Your task to perform on an android device: change the clock style Image 0: 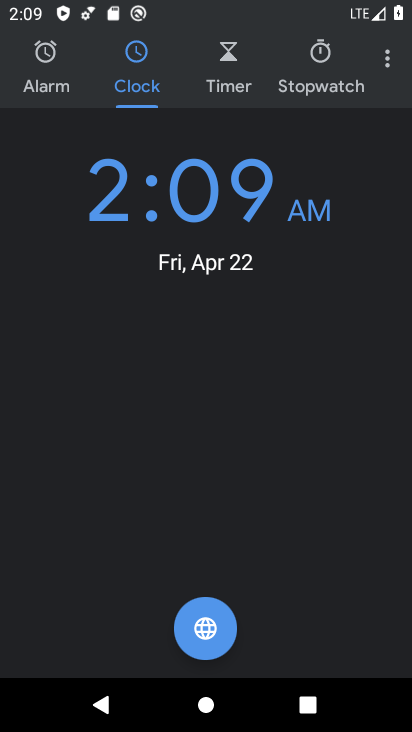
Step 0: press home button
Your task to perform on an android device: change the clock style Image 1: 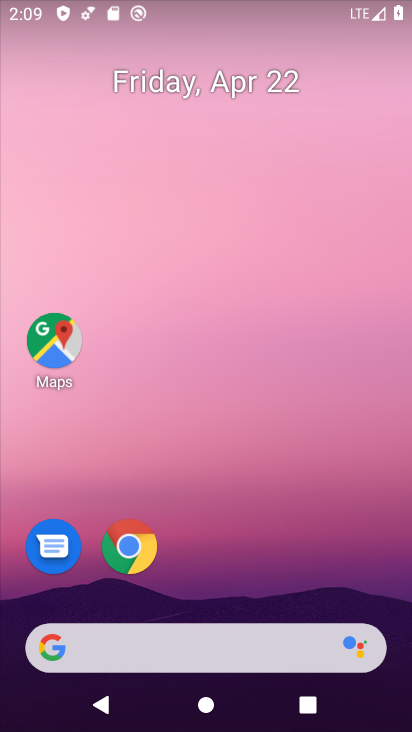
Step 1: drag from (263, 555) to (297, 123)
Your task to perform on an android device: change the clock style Image 2: 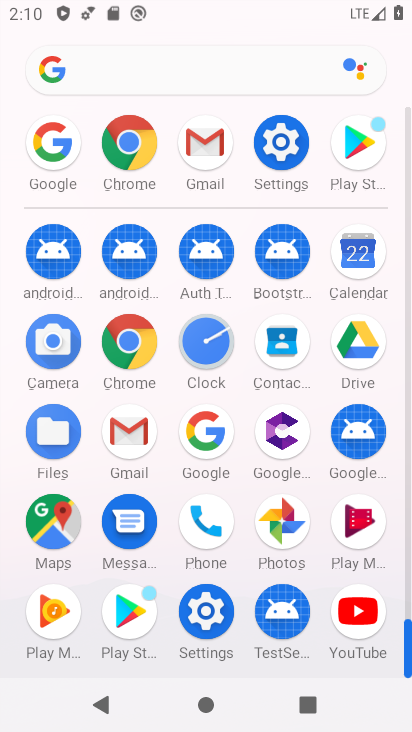
Step 2: click (210, 356)
Your task to perform on an android device: change the clock style Image 3: 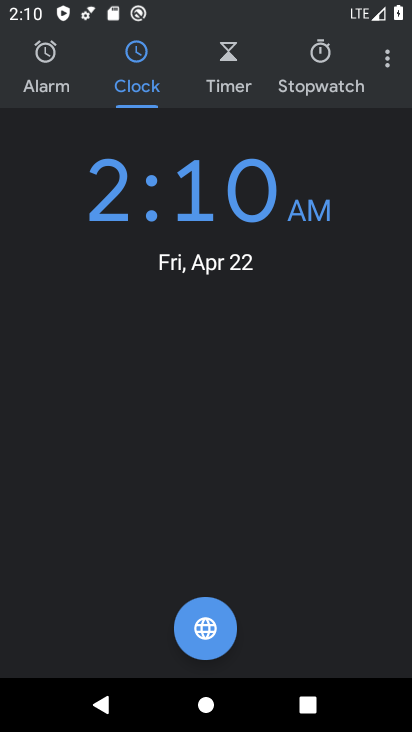
Step 3: click (385, 66)
Your task to perform on an android device: change the clock style Image 4: 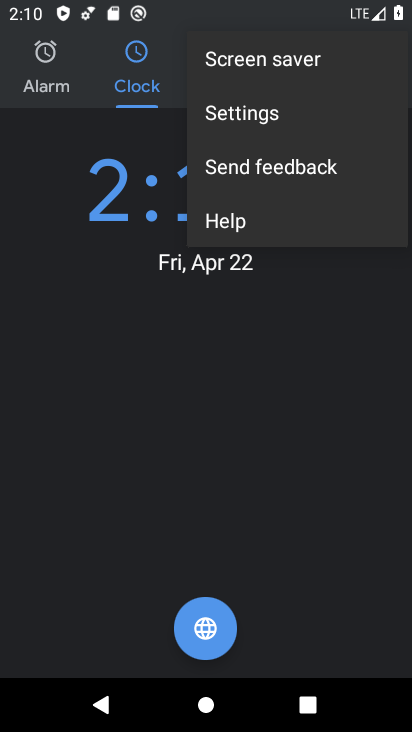
Step 4: click (282, 121)
Your task to perform on an android device: change the clock style Image 5: 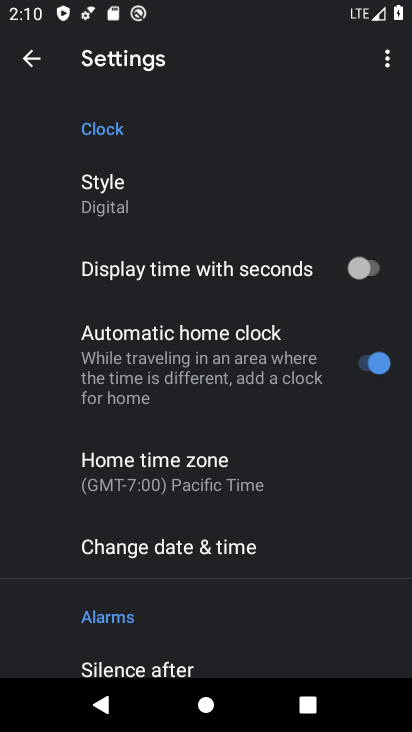
Step 5: drag from (192, 499) to (158, 232)
Your task to perform on an android device: change the clock style Image 6: 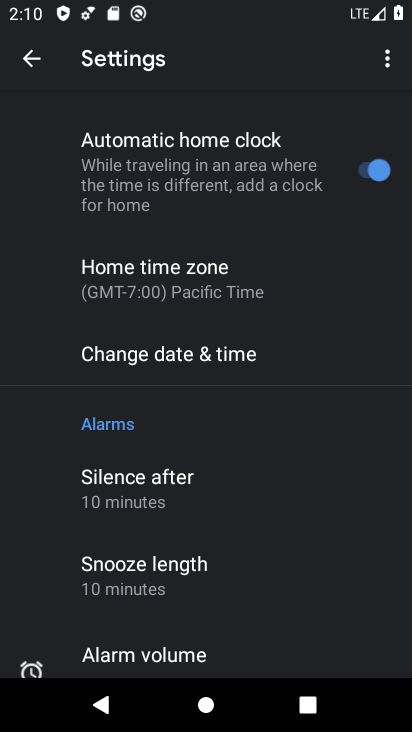
Step 6: drag from (197, 547) to (205, 338)
Your task to perform on an android device: change the clock style Image 7: 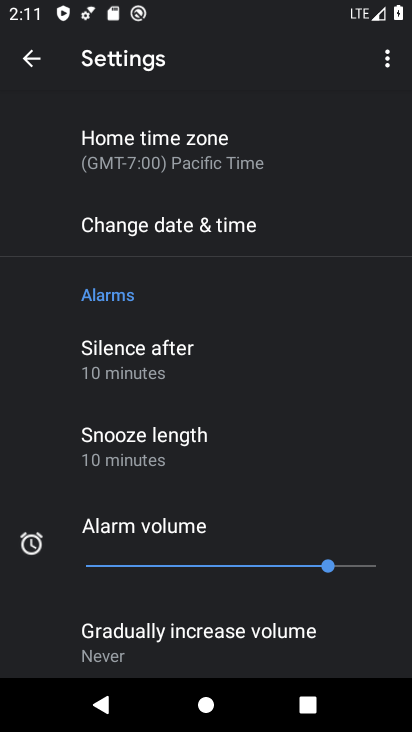
Step 7: drag from (181, 207) to (192, 513)
Your task to perform on an android device: change the clock style Image 8: 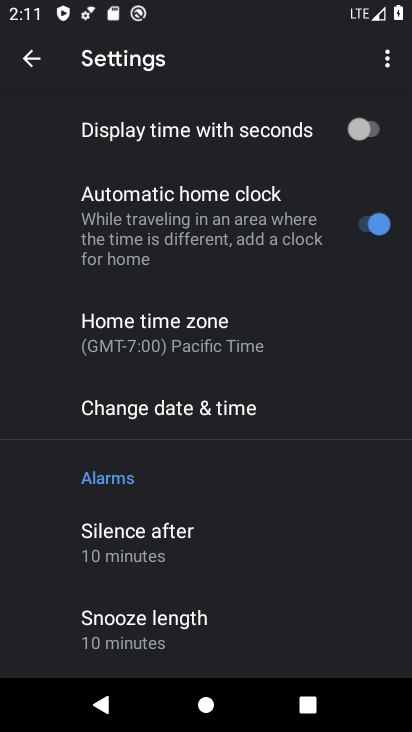
Step 8: drag from (157, 173) to (124, 730)
Your task to perform on an android device: change the clock style Image 9: 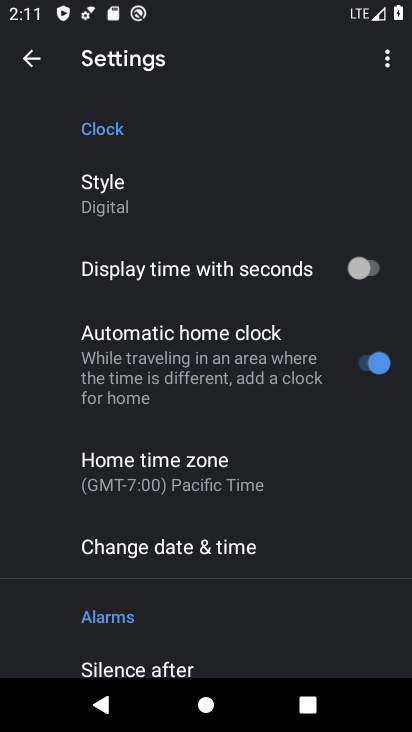
Step 9: click (107, 199)
Your task to perform on an android device: change the clock style Image 10: 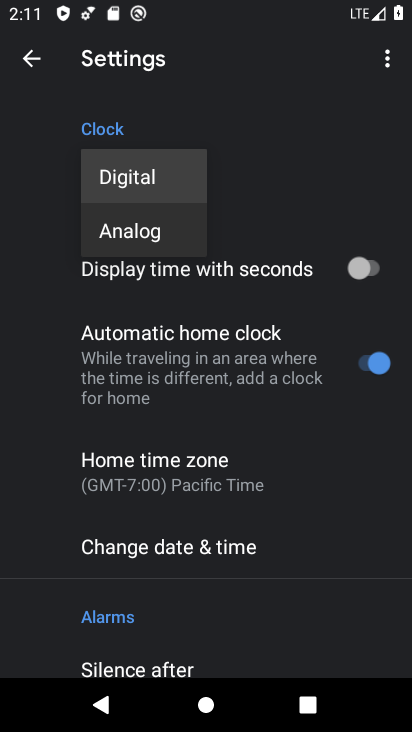
Step 10: click (134, 233)
Your task to perform on an android device: change the clock style Image 11: 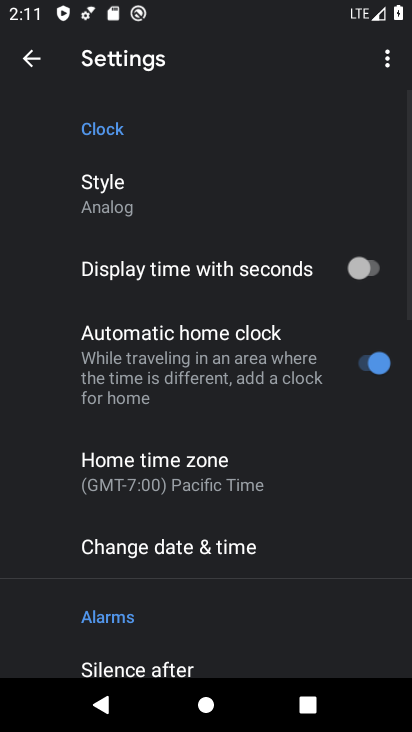
Step 11: task complete